Your task to perform on an android device: What's the weather today? Image 0: 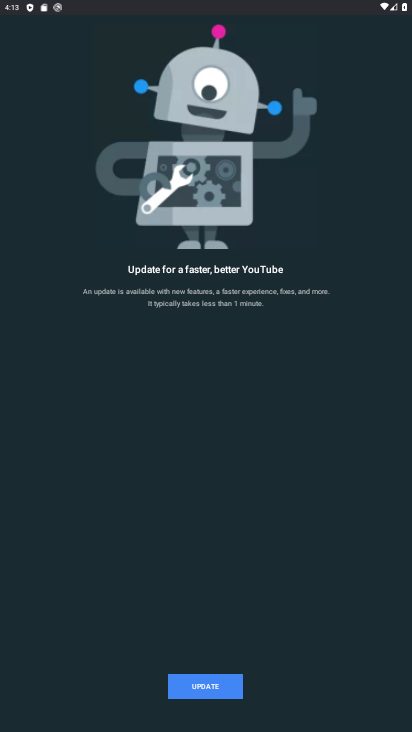
Step 0: press home button
Your task to perform on an android device: What's the weather today? Image 1: 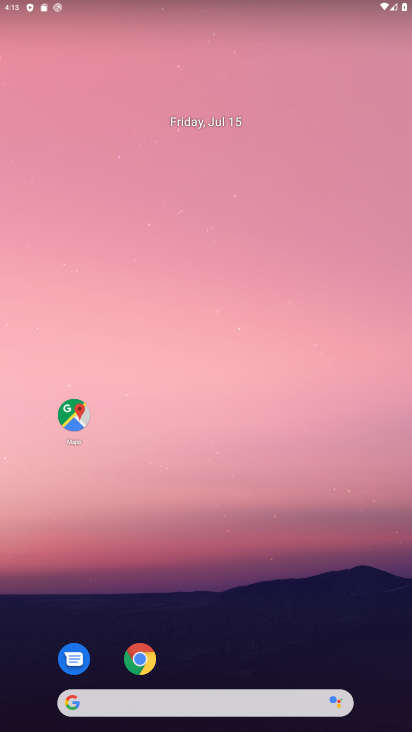
Step 1: click (153, 707)
Your task to perform on an android device: What's the weather today? Image 2: 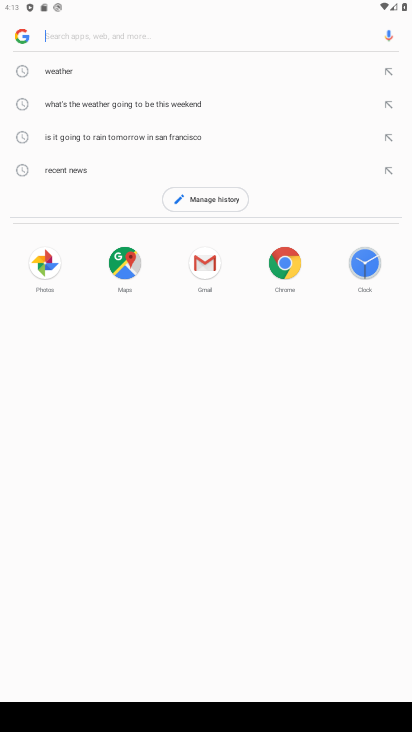
Step 2: click (153, 707)
Your task to perform on an android device: What's the weather today? Image 3: 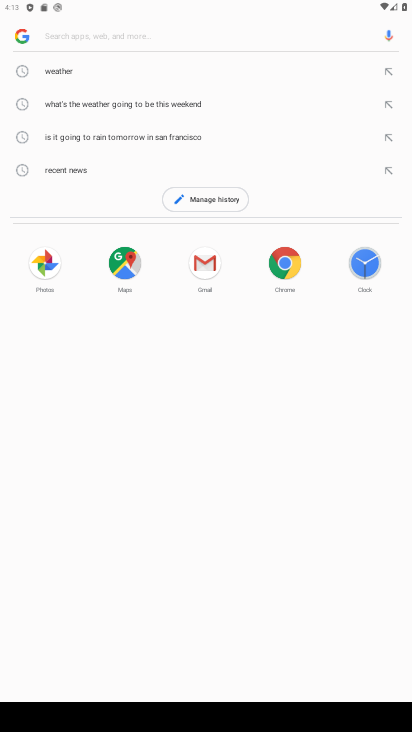
Step 3: click (74, 80)
Your task to perform on an android device: What's the weather today? Image 4: 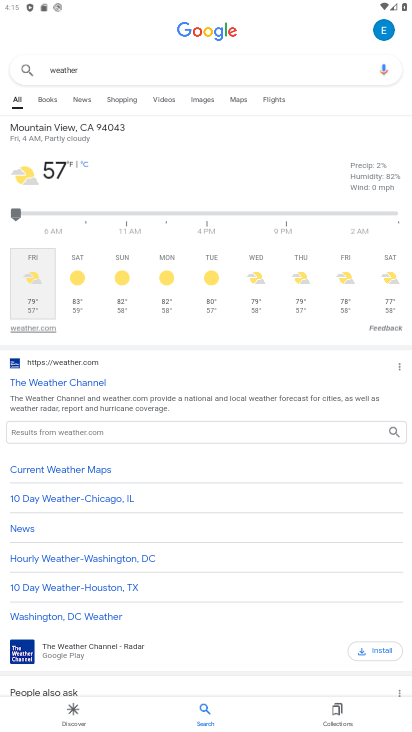
Step 4: task complete